Your task to perform on an android device: See recent photos Image 0: 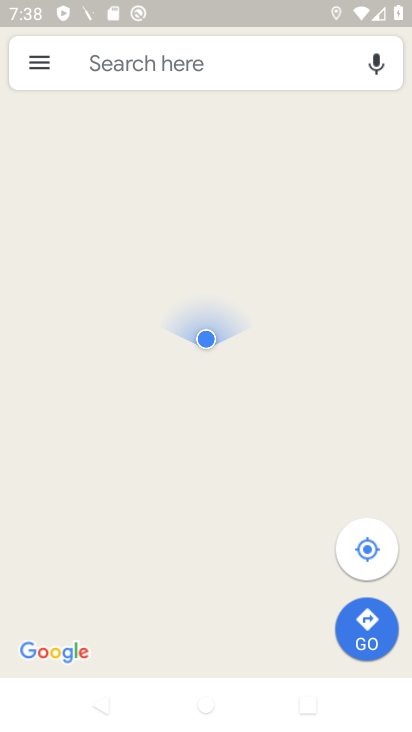
Step 0: press home button
Your task to perform on an android device: See recent photos Image 1: 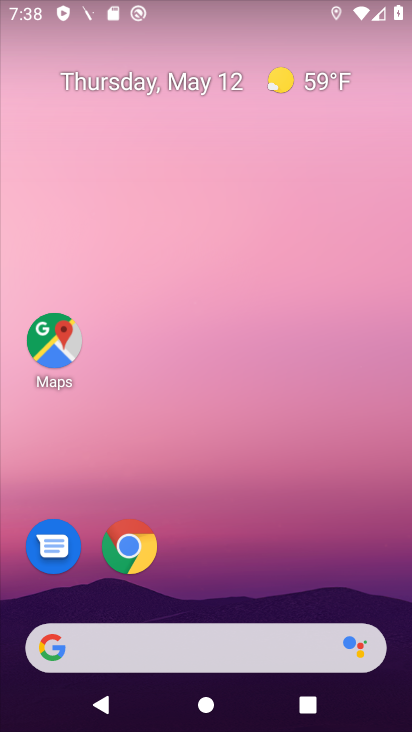
Step 1: drag from (274, 509) to (241, 77)
Your task to perform on an android device: See recent photos Image 2: 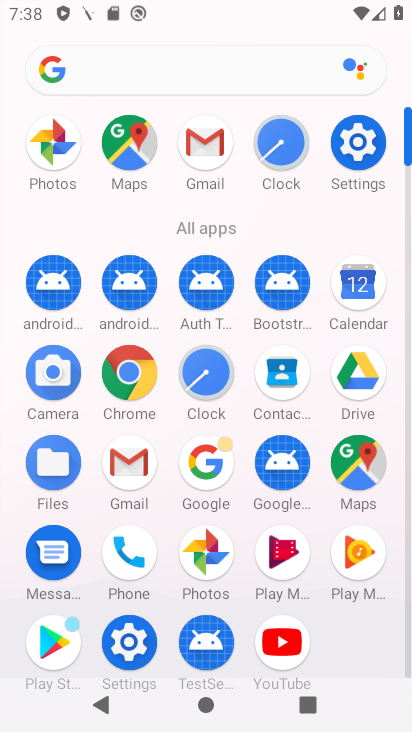
Step 2: click (213, 540)
Your task to perform on an android device: See recent photos Image 3: 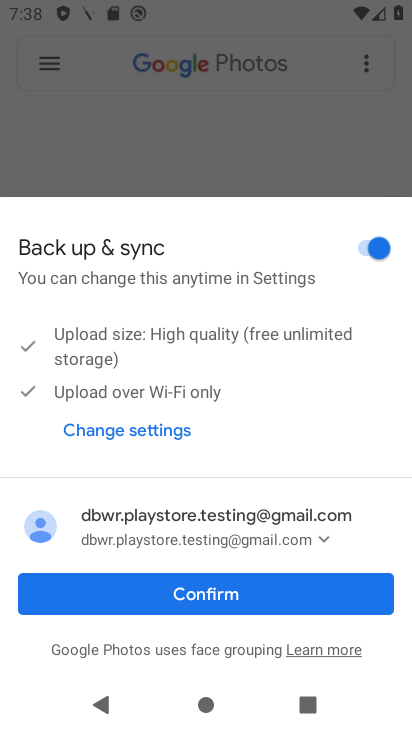
Step 3: click (226, 595)
Your task to perform on an android device: See recent photos Image 4: 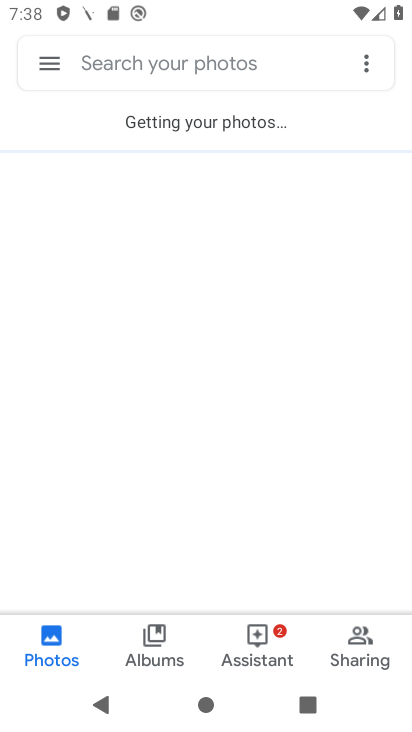
Step 4: task complete